Your task to perform on an android device: set the stopwatch Image 0: 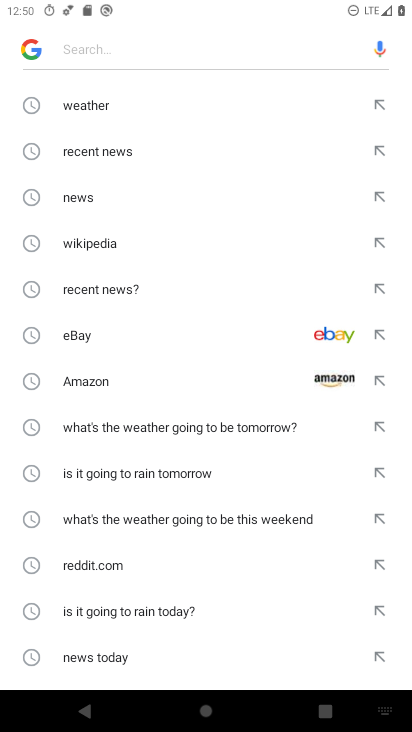
Step 0: press home button
Your task to perform on an android device: set the stopwatch Image 1: 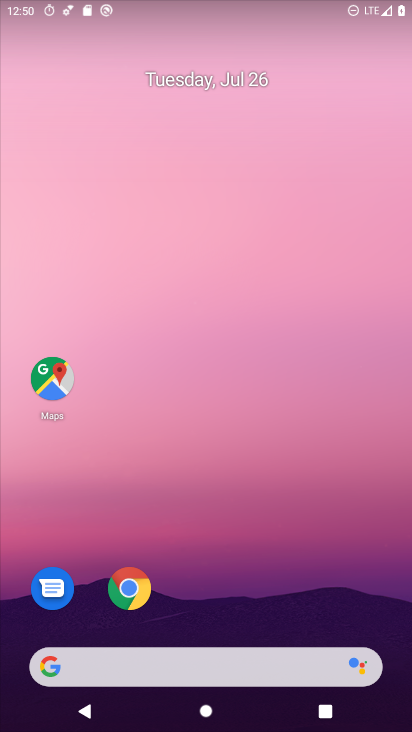
Step 1: drag from (211, 606) to (200, 141)
Your task to perform on an android device: set the stopwatch Image 2: 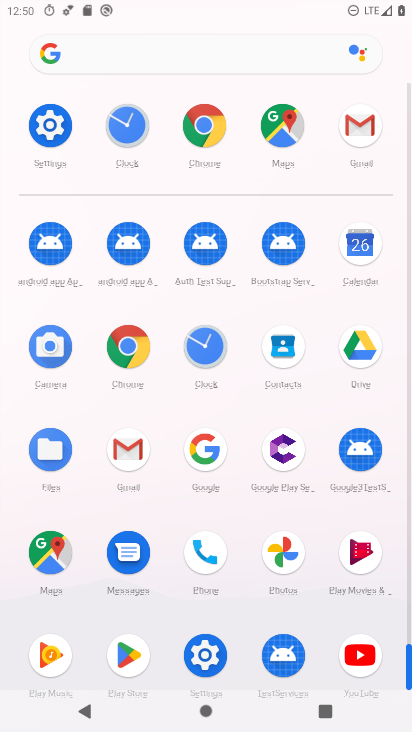
Step 2: click (212, 352)
Your task to perform on an android device: set the stopwatch Image 3: 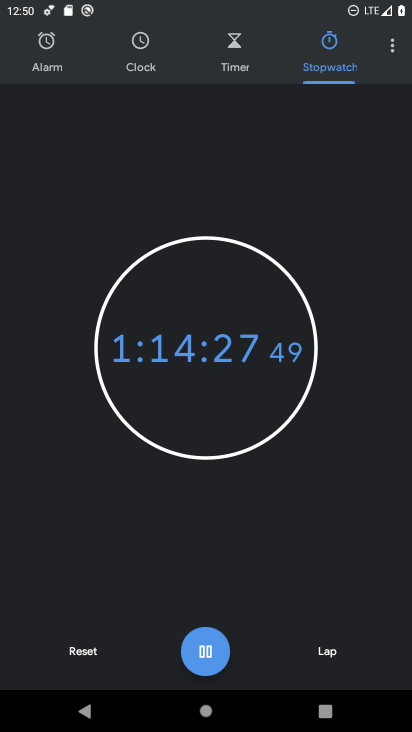
Step 3: click (201, 649)
Your task to perform on an android device: set the stopwatch Image 4: 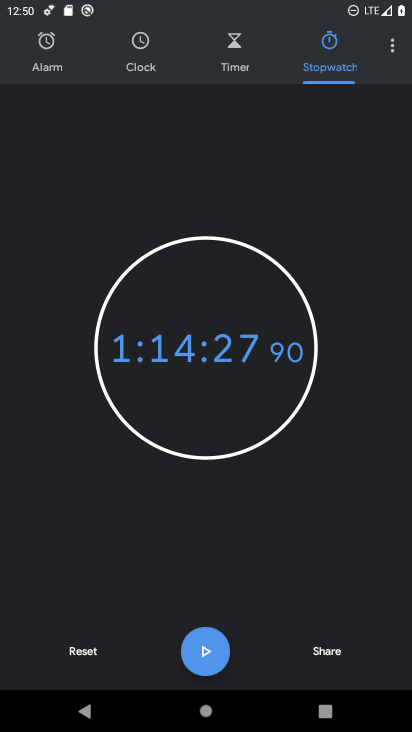
Step 4: click (87, 660)
Your task to perform on an android device: set the stopwatch Image 5: 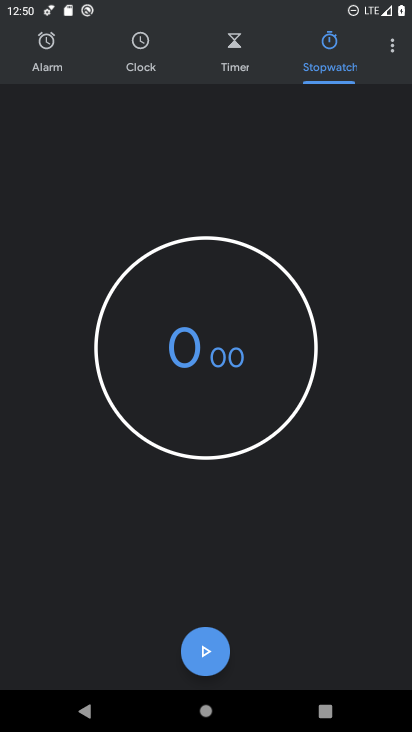
Step 5: click (215, 652)
Your task to perform on an android device: set the stopwatch Image 6: 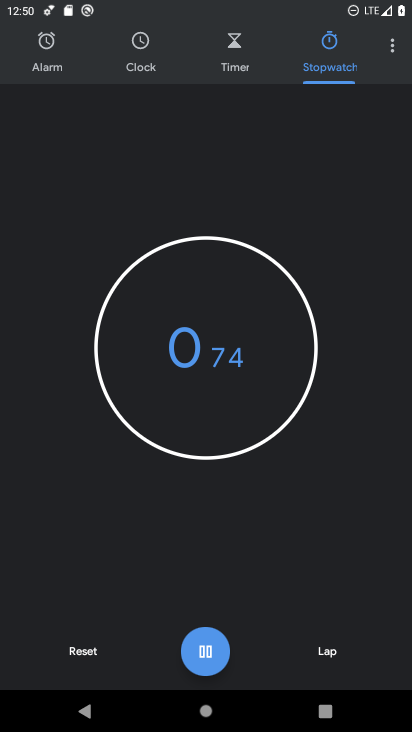
Step 6: task complete